Your task to perform on an android device: empty trash in google photos Image 0: 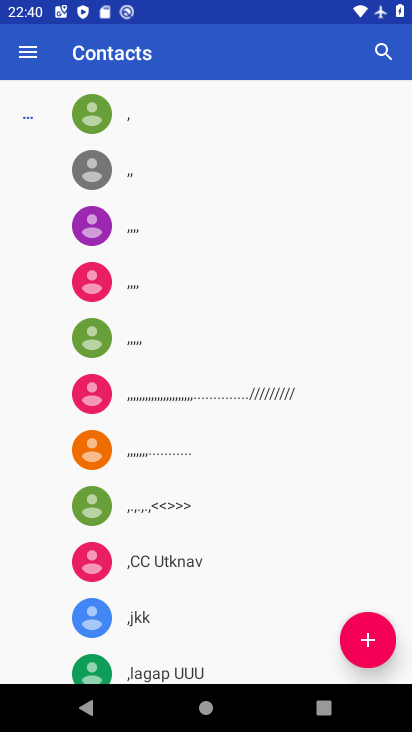
Step 0: press home button
Your task to perform on an android device: empty trash in google photos Image 1: 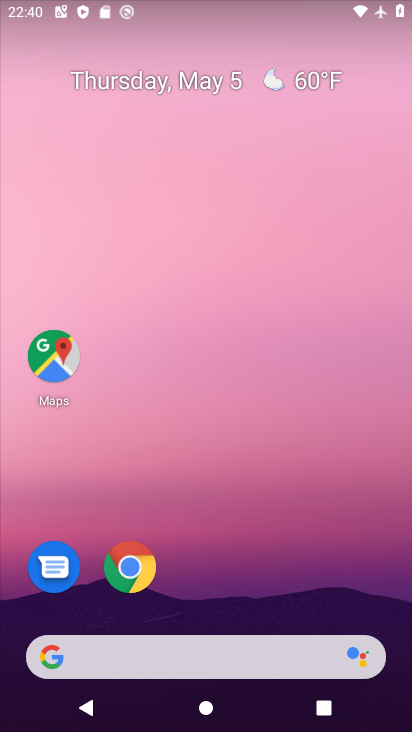
Step 1: drag from (204, 596) to (156, 148)
Your task to perform on an android device: empty trash in google photos Image 2: 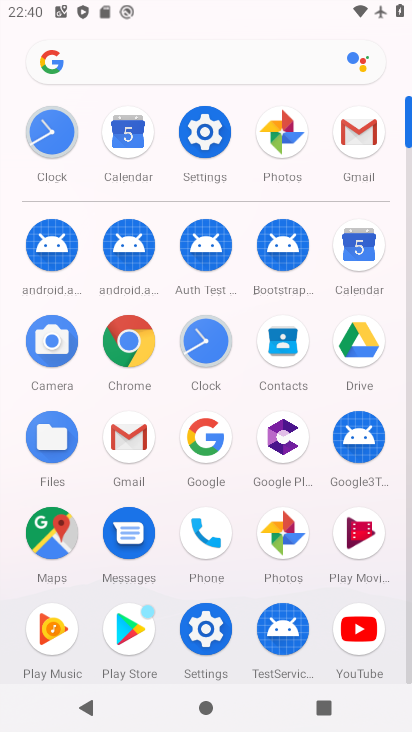
Step 2: click (284, 127)
Your task to perform on an android device: empty trash in google photos Image 3: 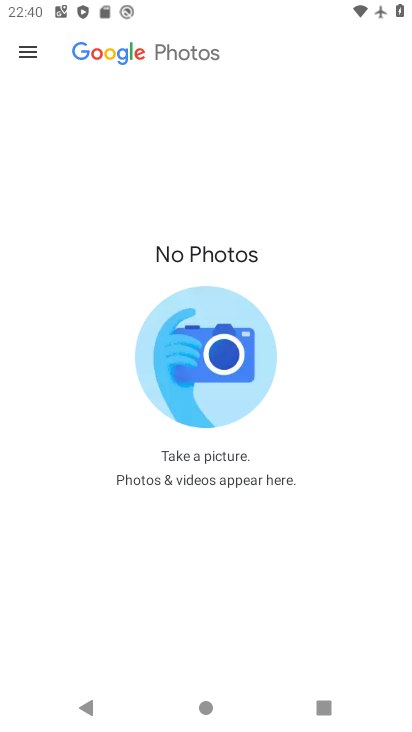
Step 3: click (37, 53)
Your task to perform on an android device: empty trash in google photos Image 4: 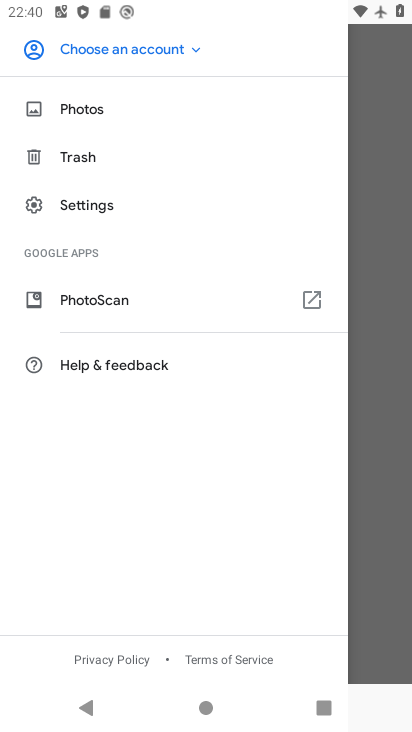
Step 4: click (79, 148)
Your task to perform on an android device: empty trash in google photos Image 5: 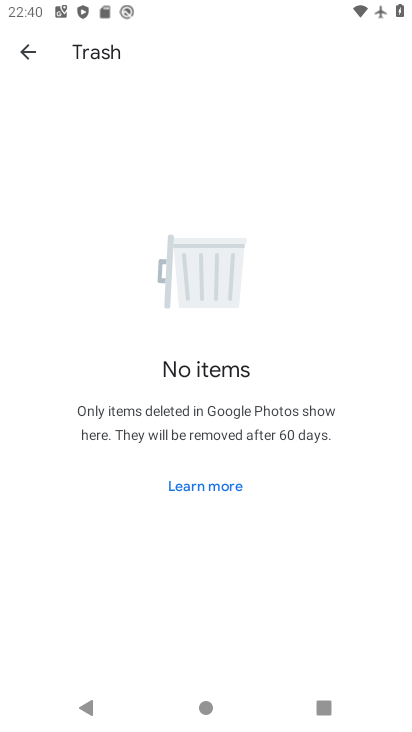
Step 5: task complete